Your task to perform on an android device: toggle location history Image 0: 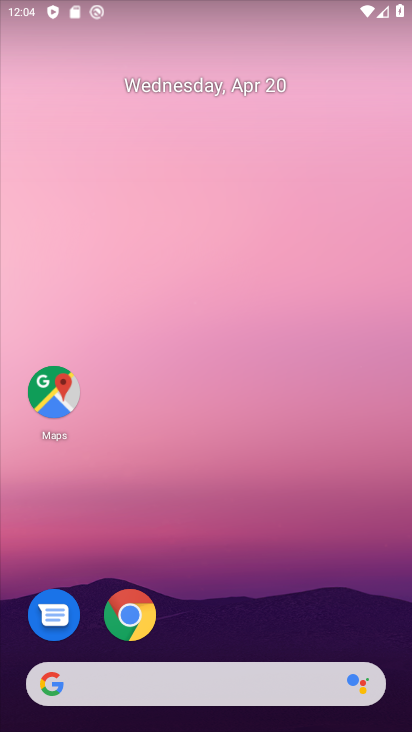
Step 0: drag from (238, 588) to (265, 132)
Your task to perform on an android device: toggle location history Image 1: 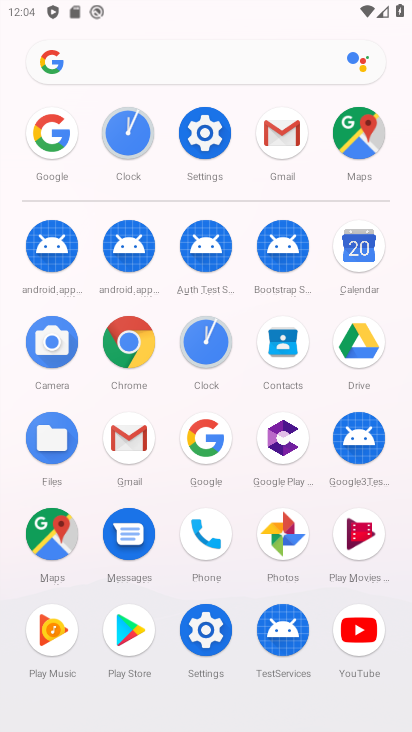
Step 1: click (205, 134)
Your task to perform on an android device: toggle location history Image 2: 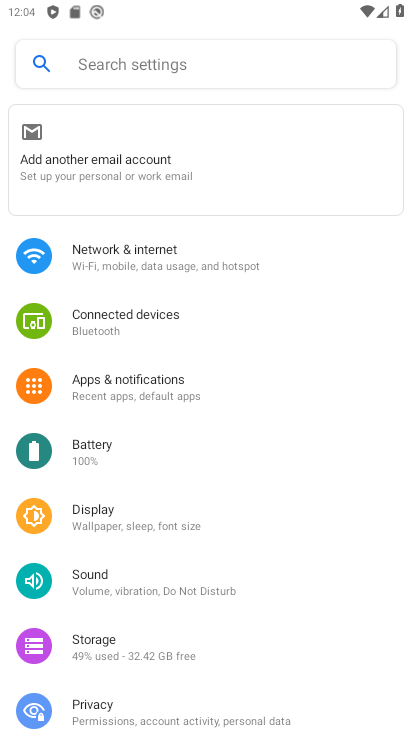
Step 2: drag from (167, 613) to (213, 304)
Your task to perform on an android device: toggle location history Image 3: 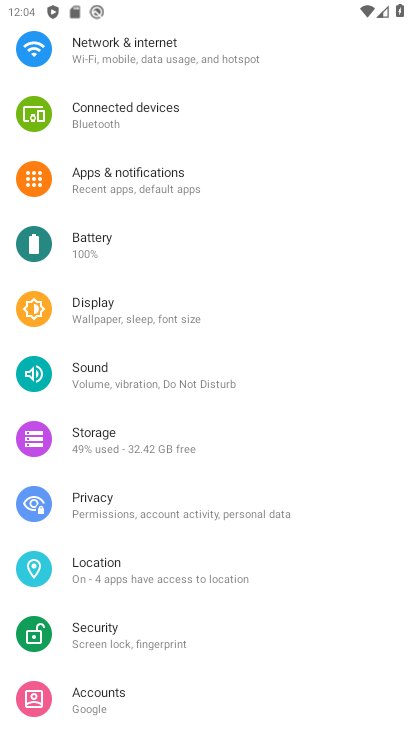
Step 3: click (103, 565)
Your task to perform on an android device: toggle location history Image 4: 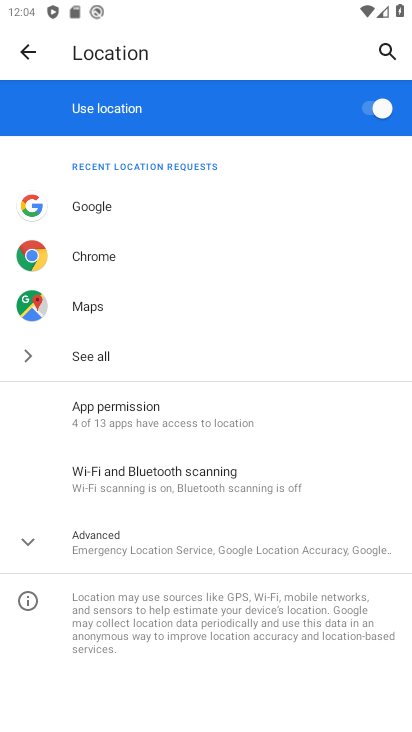
Step 4: click (103, 538)
Your task to perform on an android device: toggle location history Image 5: 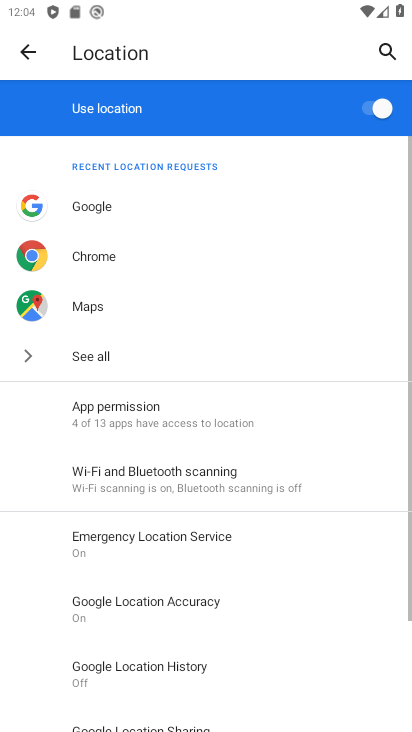
Step 5: drag from (206, 548) to (219, 403)
Your task to perform on an android device: toggle location history Image 6: 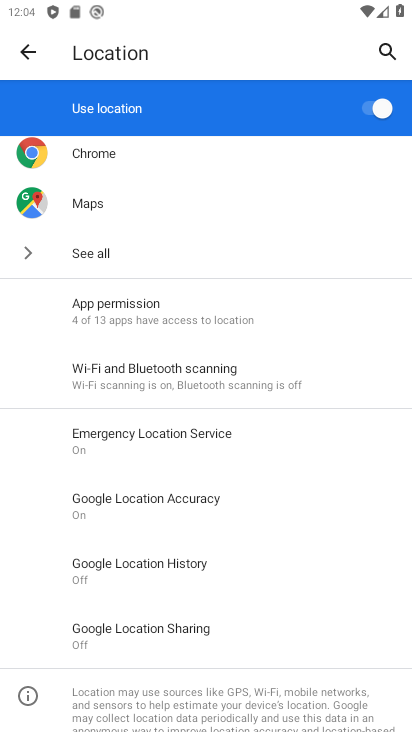
Step 6: click (160, 561)
Your task to perform on an android device: toggle location history Image 7: 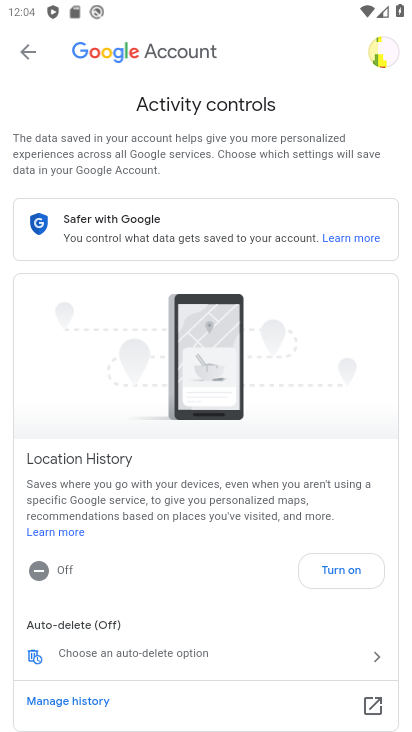
Step 7: click (328, 573)
Your task to perform on an android device: toggle location history Image 8: 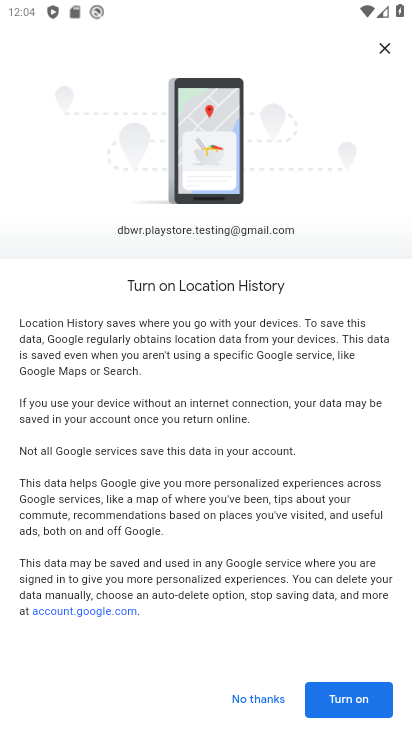
Step 8: click (344, 701)
Your task to perform on an android device: toggle location history Image 9: 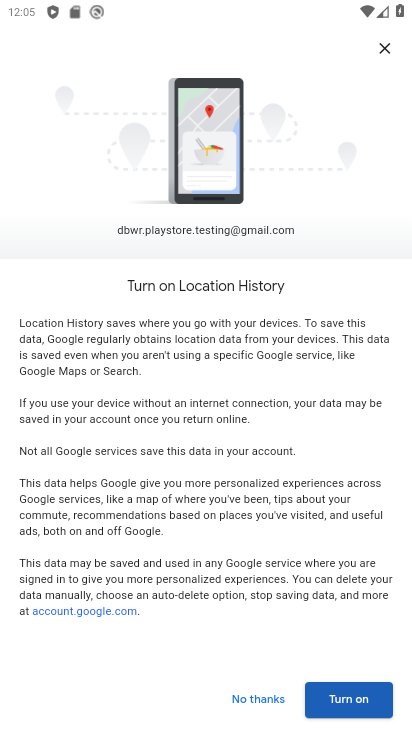
Step 9: click (342, 700)
Your task to perform on an android device: toggle location history Image 10: 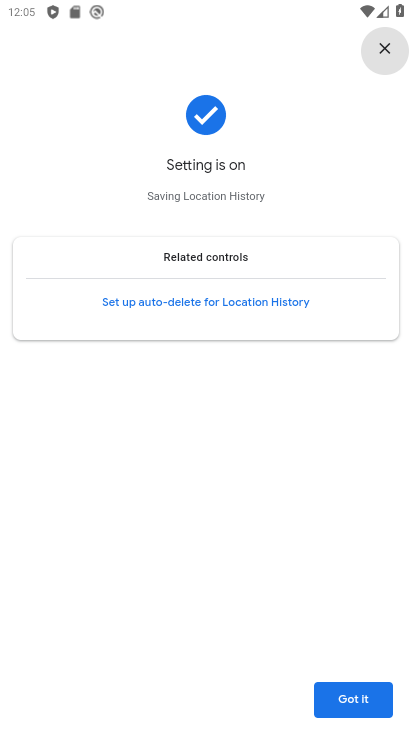
Step 10: click (342, 700)
Your task to perform on an android device: toggle location history Image 11: 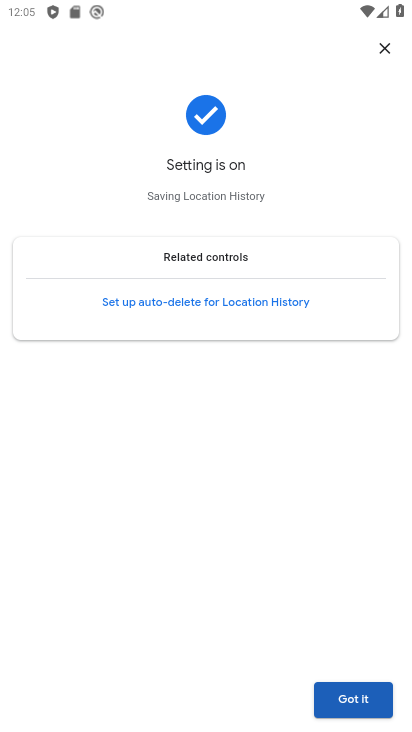
Step 11: click (359, 703)
Your task to perform on an android device: toggle location history Image 12: 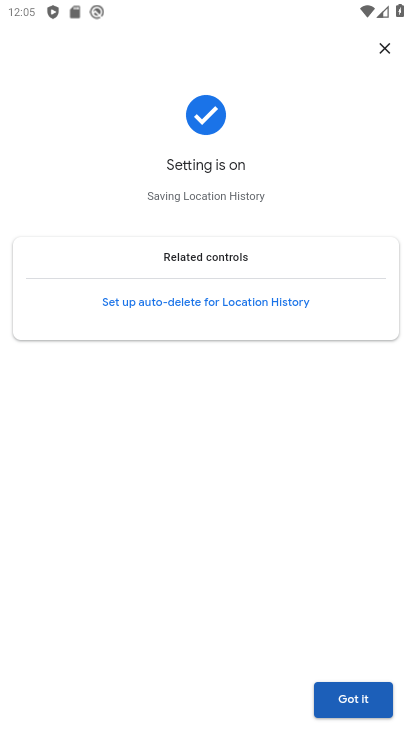
Step 12: task complete